Your task to perform on an android device: open app "Pinterest" (install if not already installed) and go to login screen Image 0: 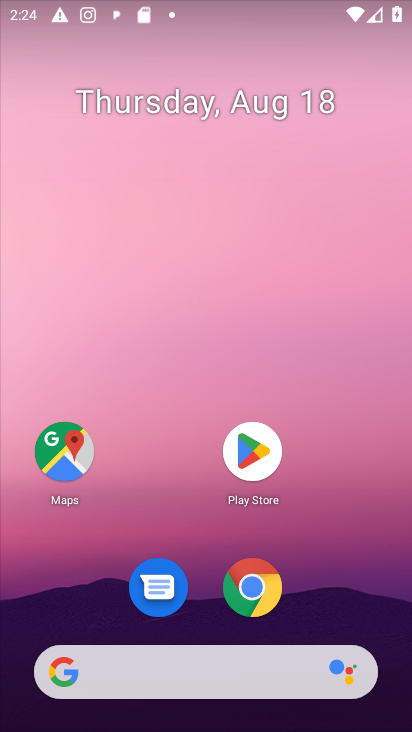
Step 0: press home button
Your task to perform on an android device: open app "Pinterest" (install if not already installed) and go to login screen Image 1: 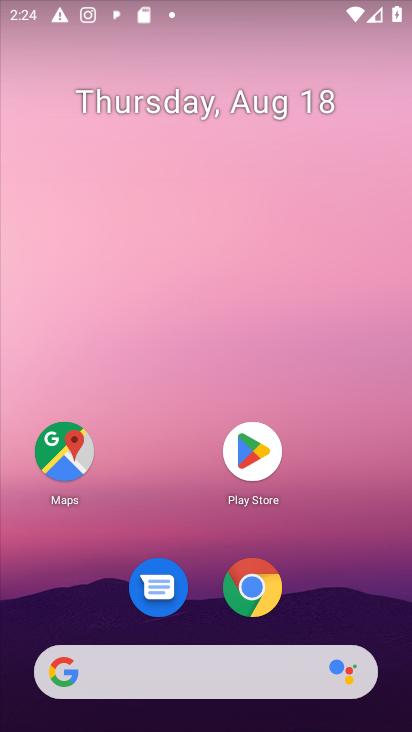
Step 1: click (262, 445)
Your task to perform on an android device: open app "Pinterest" (install if not already installed) and go to login screen Image 2: 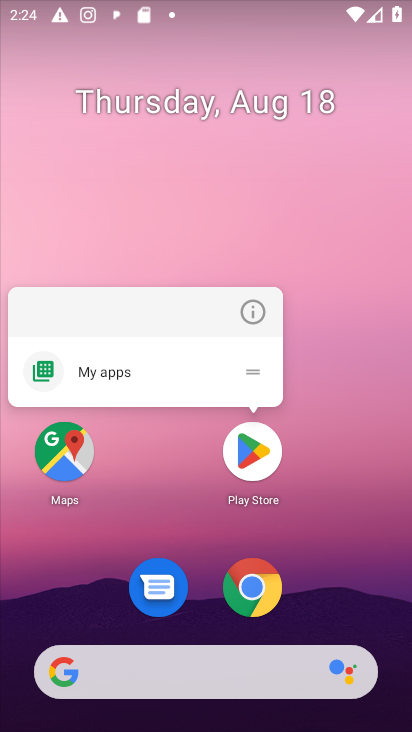
Step 2: click (255, 445)
Your task to perform on an android device: open app "Pinterest" (install if not already installed) and go to login screen Image 3: 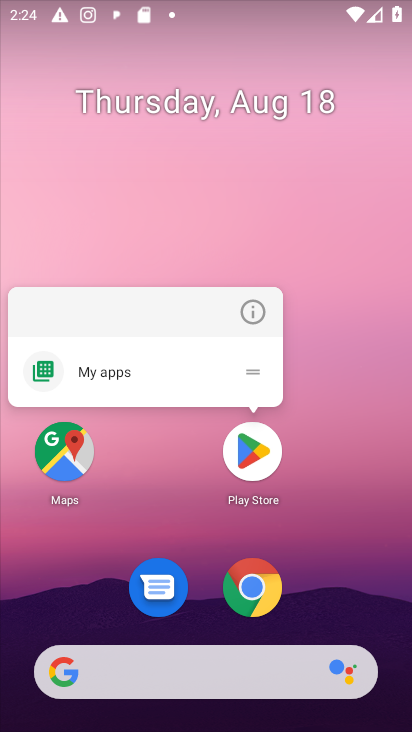
Step 3: click (255, 448)
Your task to perform on an android device: open app "Pinterest" (install if not already installed) and go to login screen Image 4: 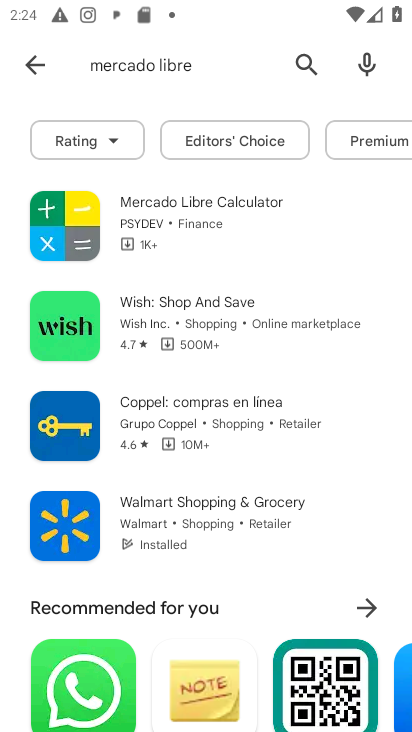
Step 4: click (307, 60)
Your task to perform on an android device: open app "Pinterest" (install if not already installed) and go to login screen Image 5: 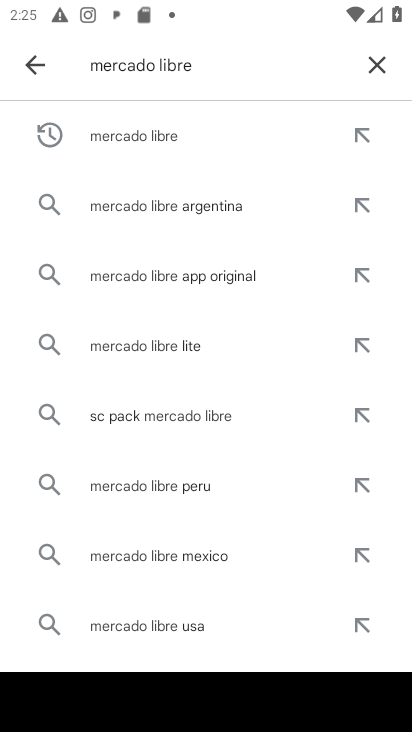
Step 5: click (378, 60)
Your task to perform on an android device: open app "Pinterest" (install if not already installed) and go to login screen Image 6: 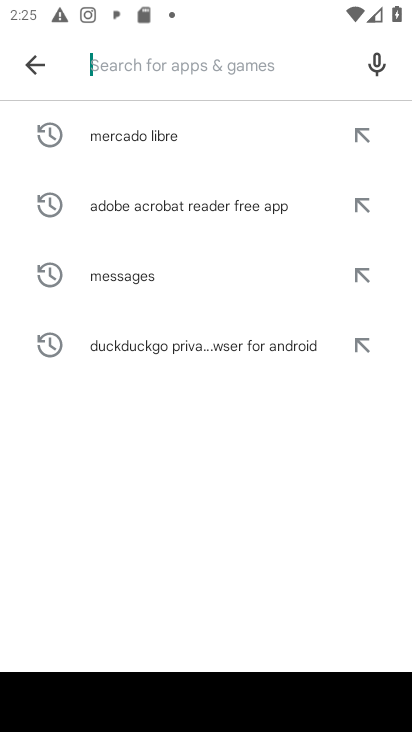
Step 6: type "Pinterest"
Your task to perform on an android device: open app "Pinterest" (install if not already installed) and go to login screen Image 7: 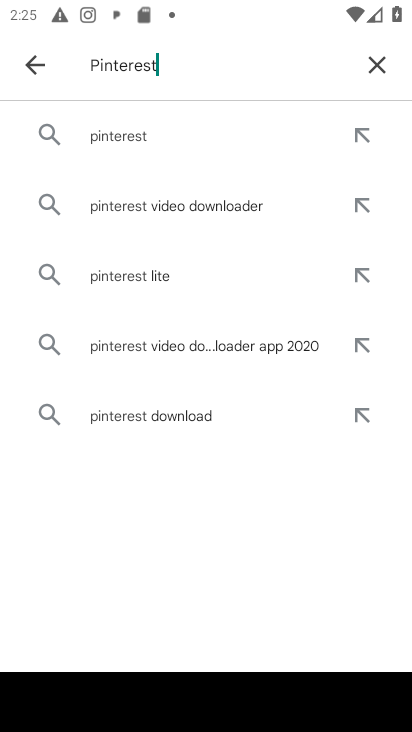
Step 7: click (131, 136)
Your task to perform on an android device: open app "Pinterest" (install if not already installed) and go to login screen Image 8: 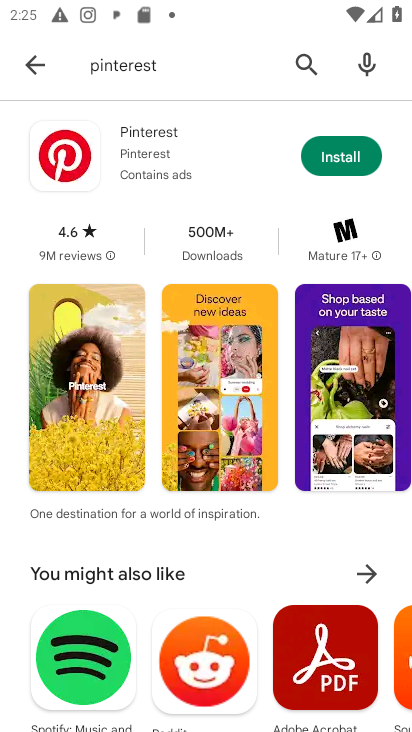
Step 8: click (343, 149)
Your task to perform on an android device: open app "Pinterest" (install if not already installed) and go to login screen Image 9: 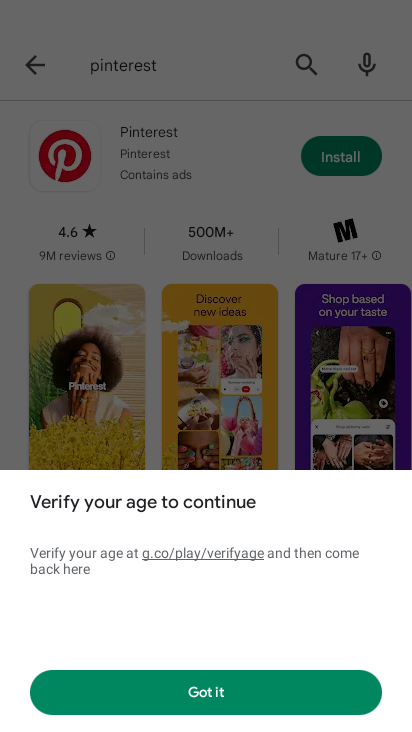
Step 9: click (210, 700)
Your task to perform on an android device: open app "Pinterest" (install if not already installed) and go to login screen Image 10: 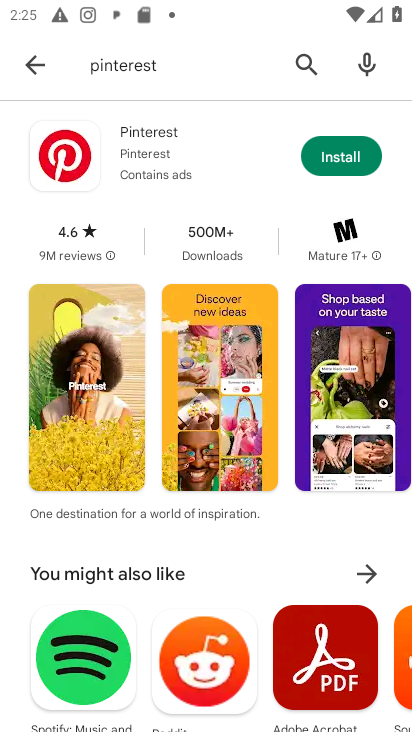
Step 10: task complete